Your task to perform on an android device: Search for seafood restaurants on Google Maps Image 0: 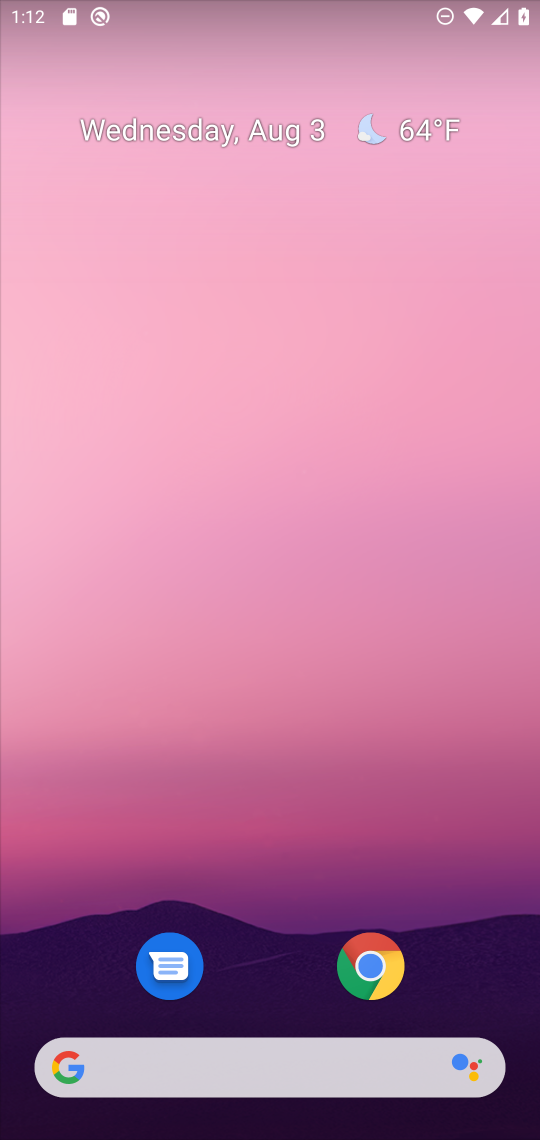
Step 0: drag from (273, 971) to (254, 275)
Your task to perform on an android device: Search for seafood restaurants on Google Maps Image 1: 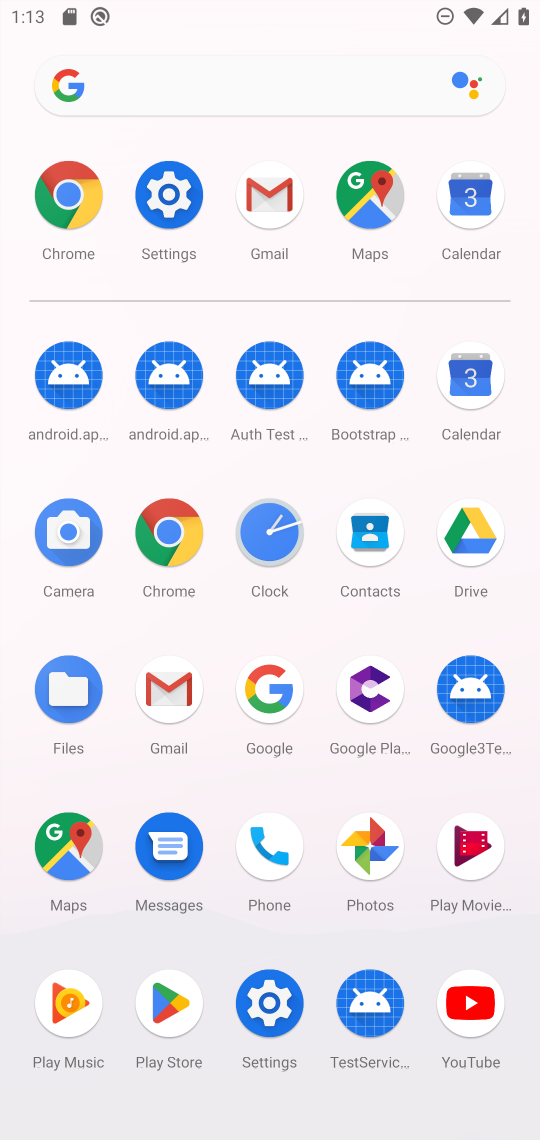
Step 1: click (393, 208)
Your task to perform on an android device: Search for seafood restaurants on Google Maps Image 2: 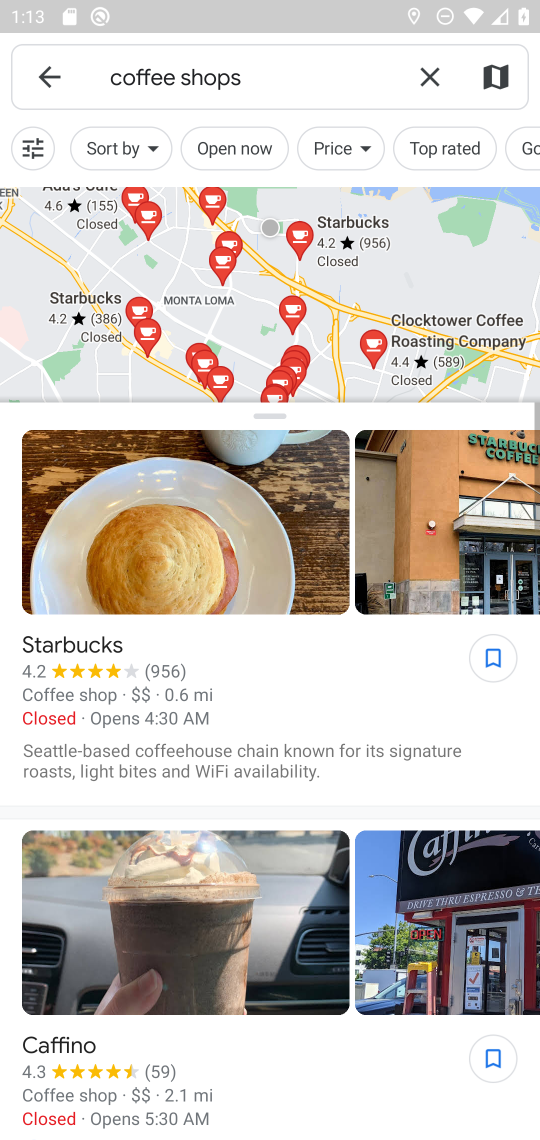
Step 2: click (431, 83)
Your task to perform on an android device: Search for seafood restaurants on Google Maps Image 3: 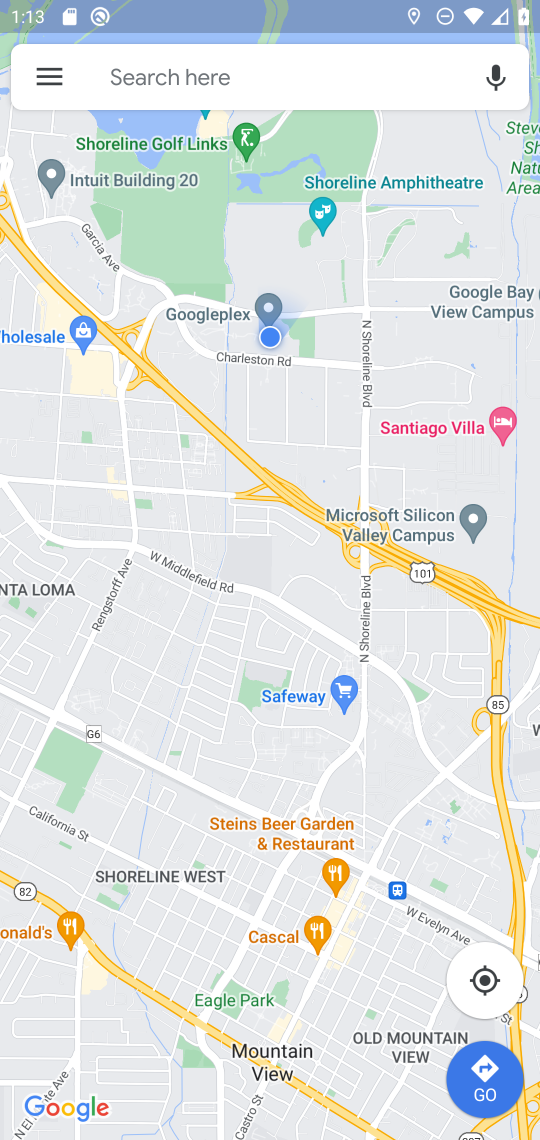
Step 3: type "seafood restaurants"
Your task to perform on an android device: Search for seafood restaurants on Google Maps Image 4: 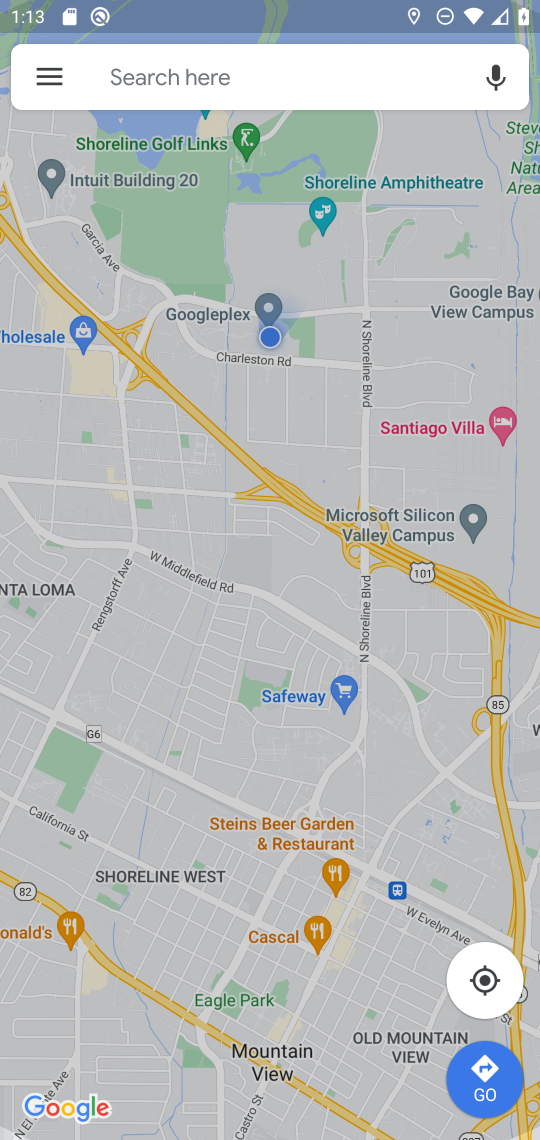
Step 4: type ""
Your task to perform on an android device: Search for seafood restaurants on Google Maps Image 5: 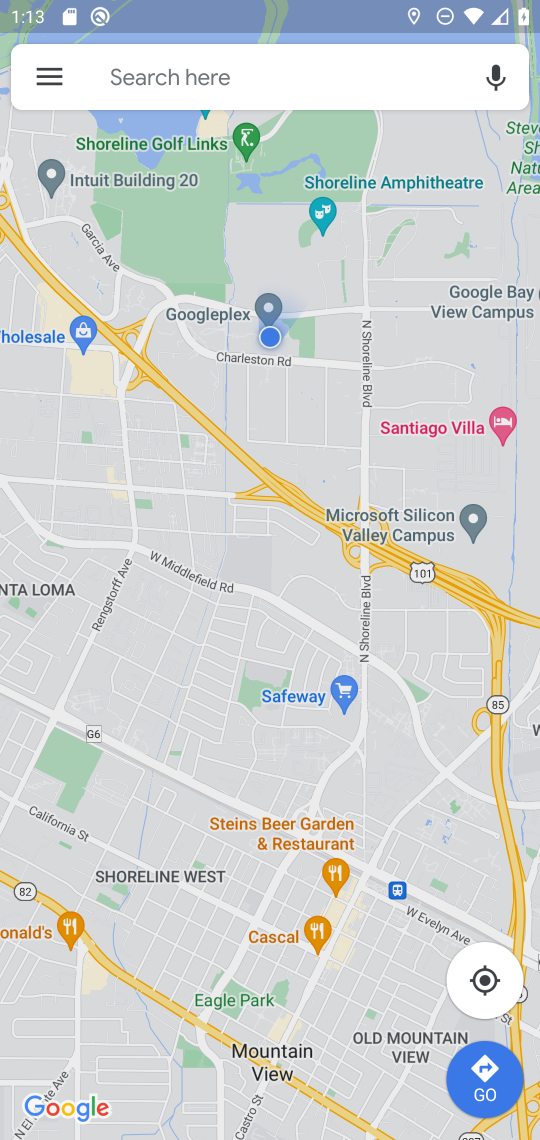
Step 5: click (293, 90)
Your task to perform on an android device: Search for seafood restaurants on Google Maps Image 6: 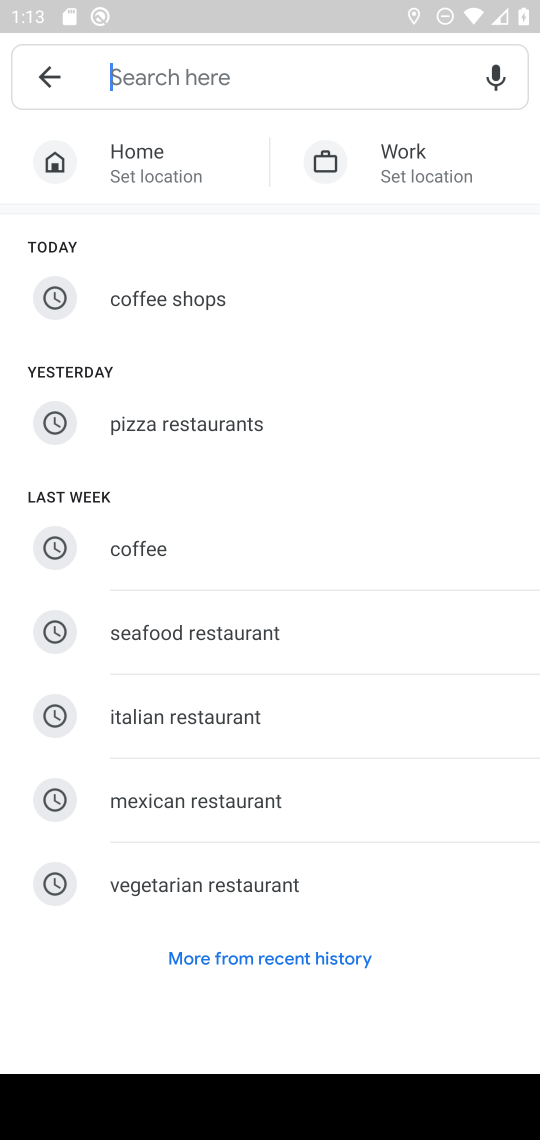
Step 6: click (227, 647)
Your task to perform on an android device: Search for seafood restaurants on Google Maps Image 7: 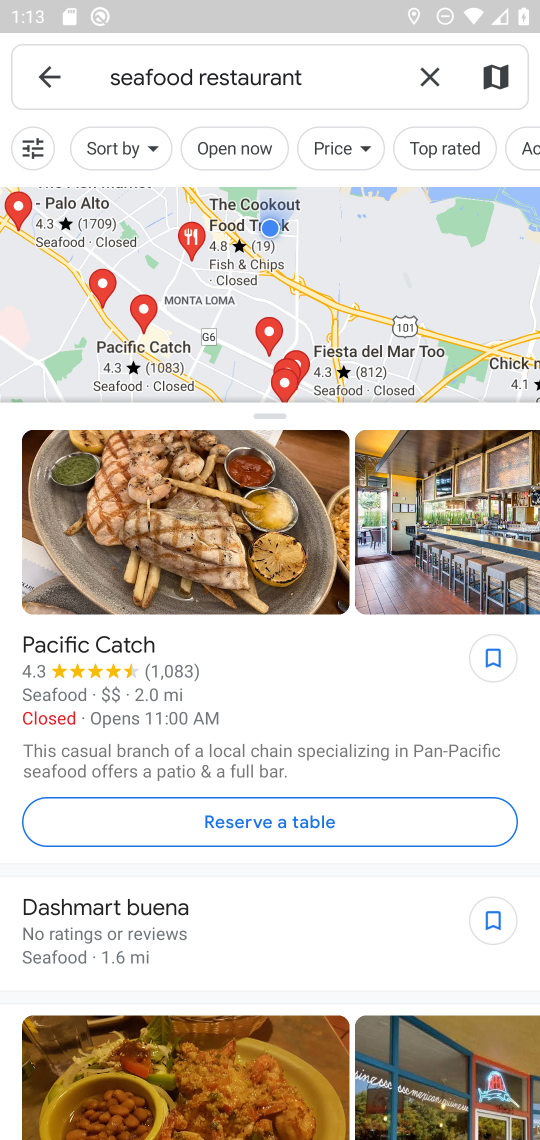
Step 7: task complete